Your task to perform on an android device: Do I have any events today? Image 0: 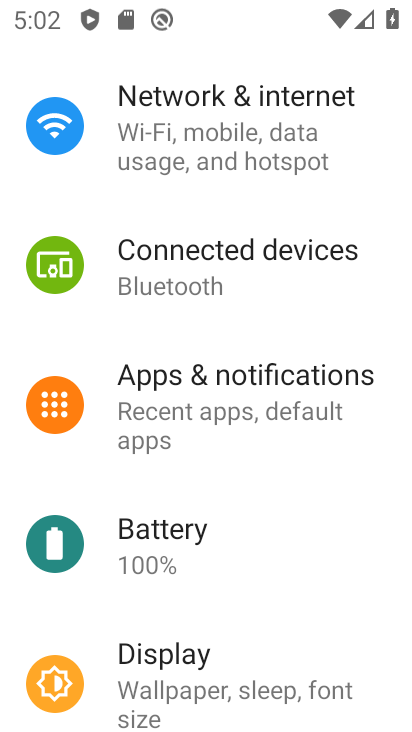
Step 0: press home button
Your task to perform on an android device: Do I have any events today? Image 1: 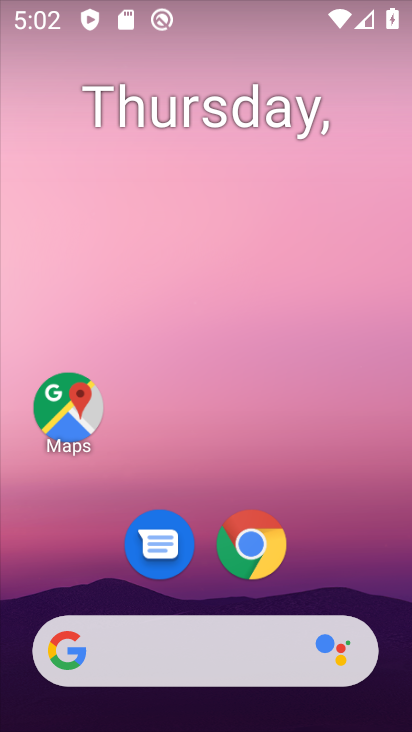
Step 1: drag from (341, 536) to (286, 100)
Your task to perform on an android device: Do I have any events today? Image 2: 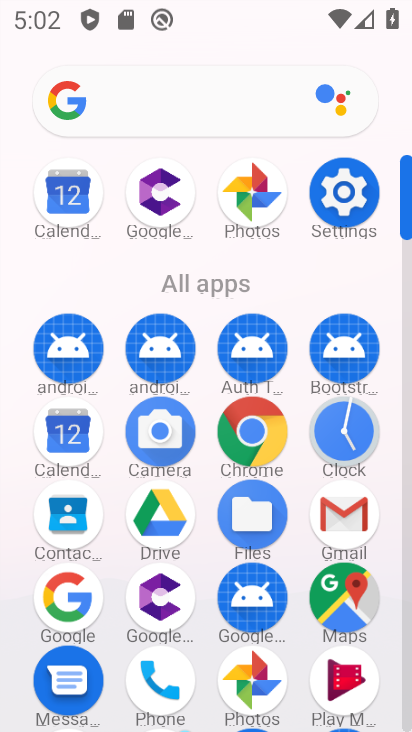
Step 2: click (80, 426)
Your task to perform on an android device: Do I have any events today? Image 3: 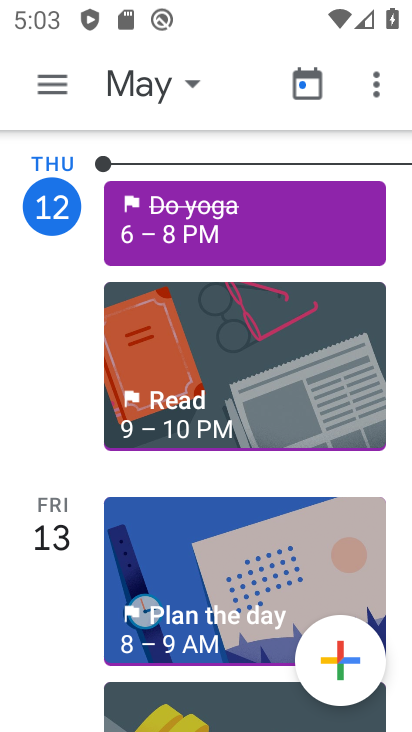
Step 3: task complete